Your task to perform on an android device: Open Google Maps Image 0: 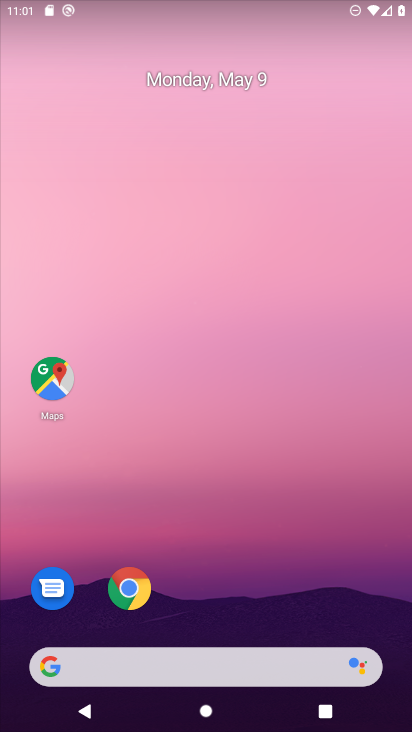
Step 0: click (63, 395)
Your task to perform on an android device: Open Google Maps Image 1: 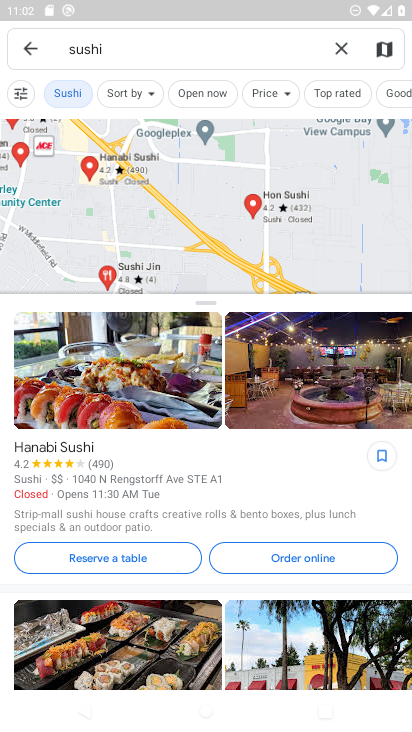
Step 1: click (289, 50)
Your task to perform on an android device: Open Google Maps Image 2: 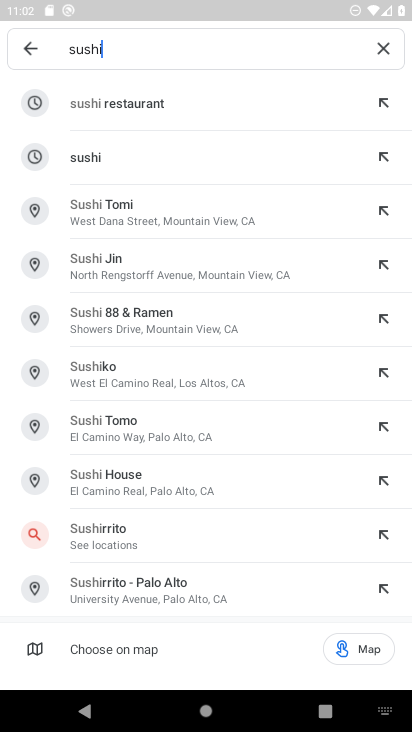
Step 2: task complete